Your task to perform on an android device: check android version Image 0: 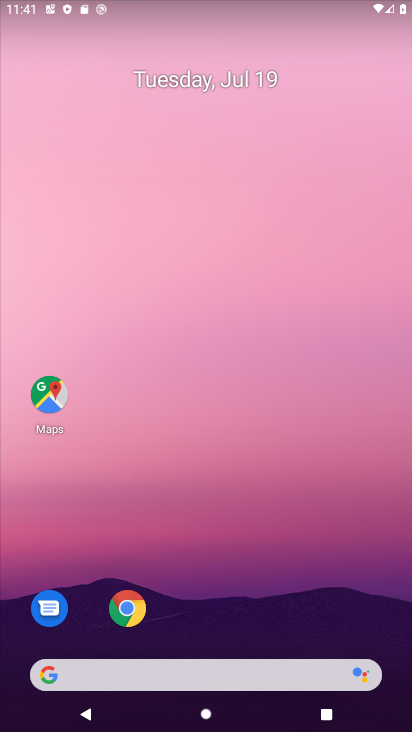
Step 0: drag from (194, 569) to (326, 36)
Your task to perform on an android device: check android version Image 1: 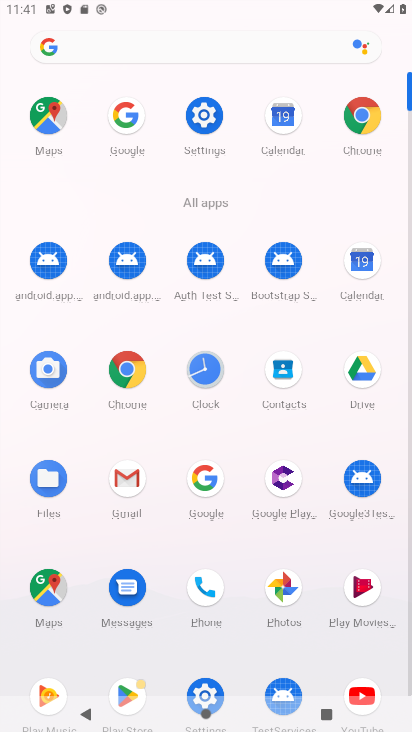
Step 1: click (205, 111)
Your task to perform on an android device: check android version Image 2: 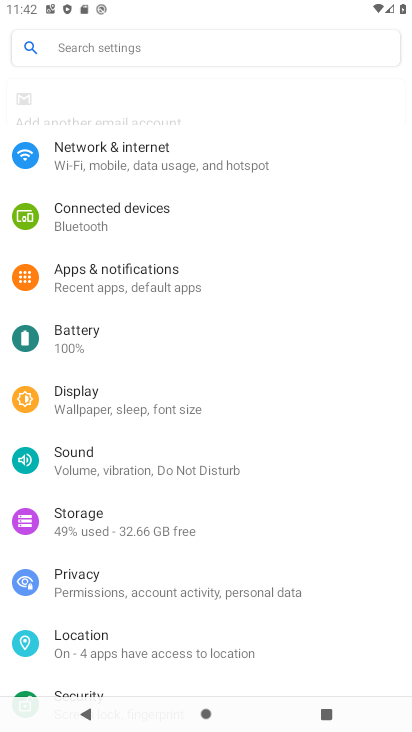
Step 2: click (263, 10)
Your task to perform on an android device: check android version Image 3: 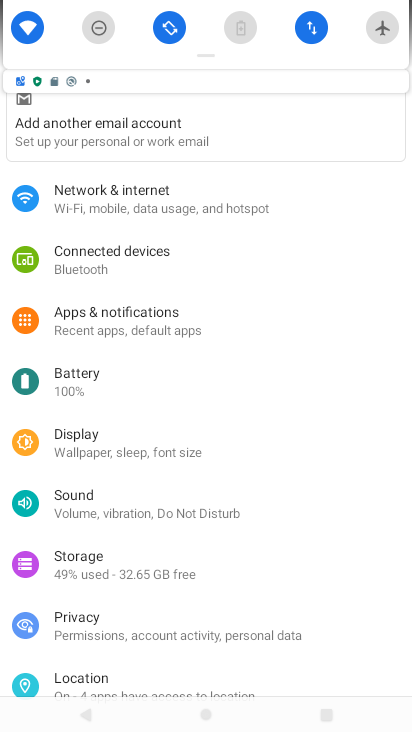
Step 3: drag from (130, 669) to (187, 240)
Your task to perform on an android device: check android version Image 4: 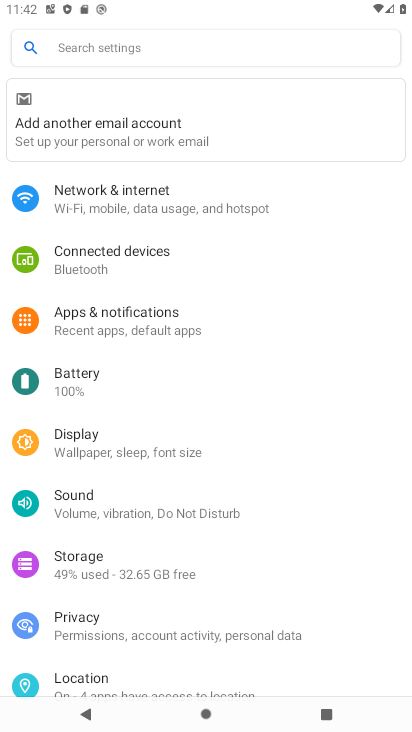
Step 4: drag from (175, 670) to (197, 159)
Your task to perform on an android device: check android version Image 5: 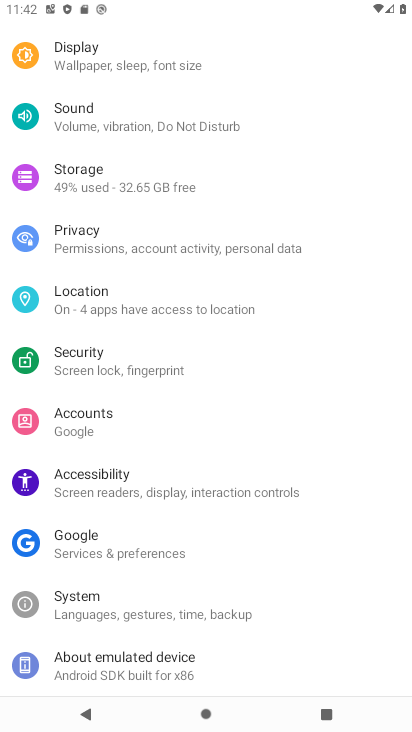
Step 5: click (87, 672)
Your task to perform on an android device: check android version Image 6: 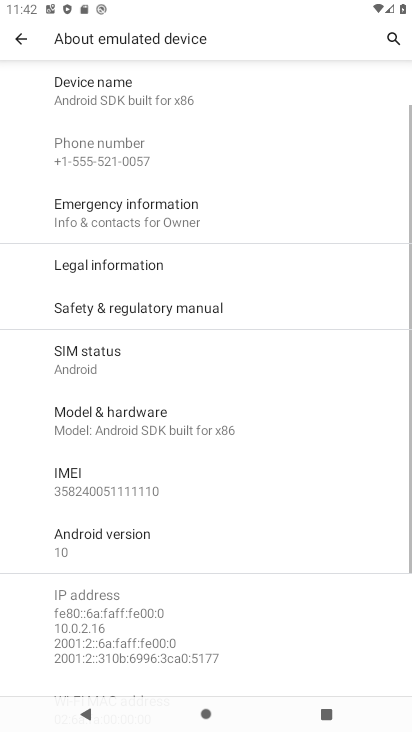
Step 6: click (117, 540)
Your task to perform on an android device: check android version Image 7: 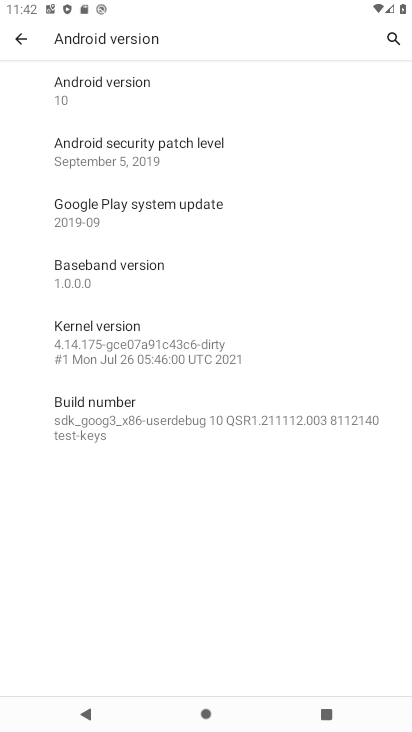
Step 7: task complete